Your task to perform on an android device: Show me productivity apps on the Play Store Image 0: 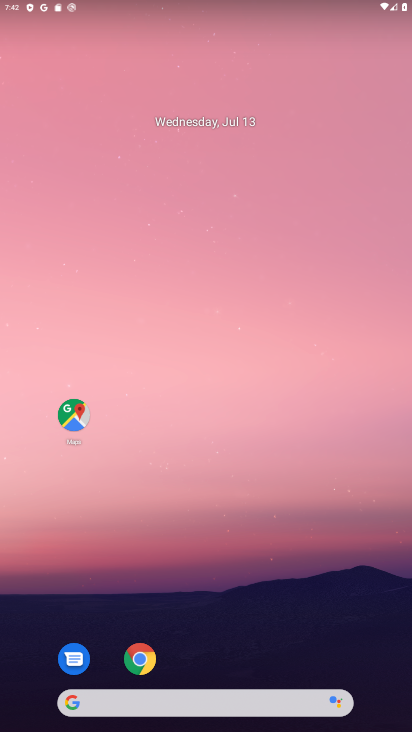
Step 0: drag from (229, 653) to (252, 313)
Your task to perform on an android device: Show me productivity apps on the Play Store Image 1: 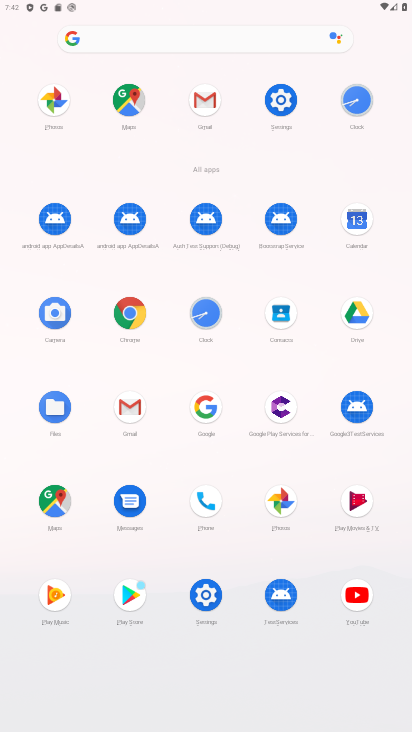
Step 1: click (141, 589)
Your task to perform on an android device: Show me productivity apps on the Play Store Image 2: 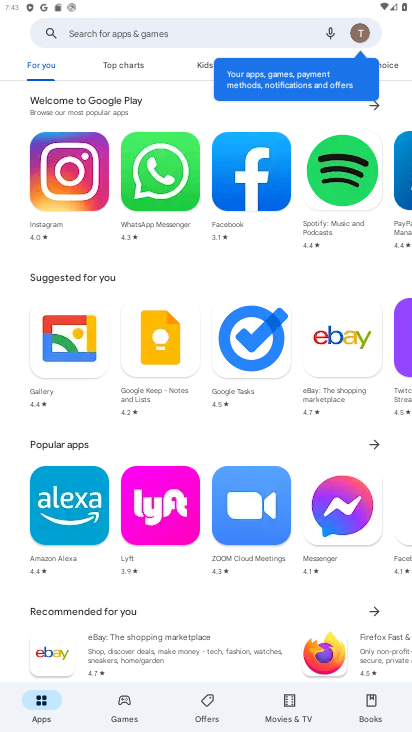
Step 2: click (120, 70)
Your task to perform on an android device: Show me productivity apps on the Play Store Image 3: 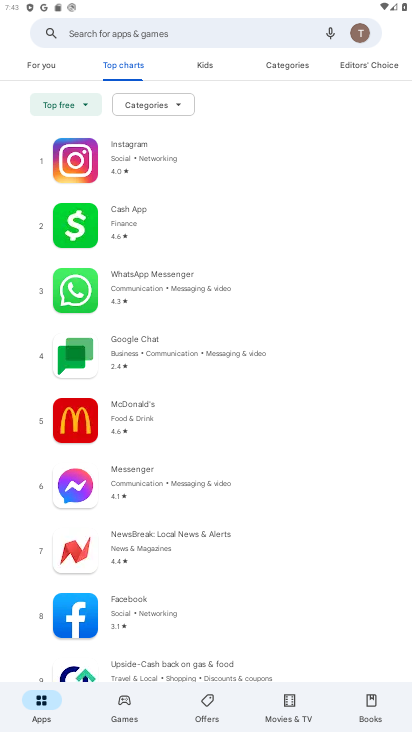
Step 3: click (169, 109)
Your task to perform on an android device: Show me productivity apps on the Play Store Image 4: 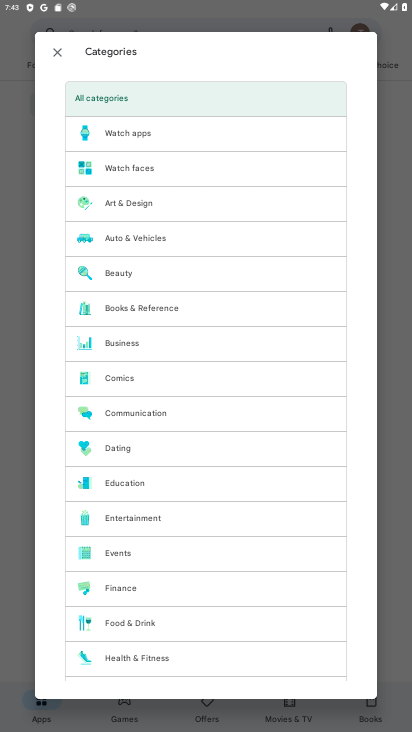
Step 4: drag from (127, 620) to (127, 439)
Your task to perform on an android device: Show me productivity apps on the Play Store Image 5: 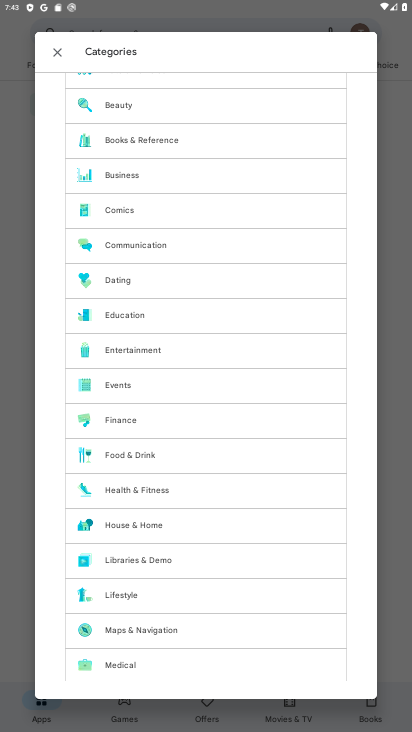
Step 5: drag from (162, 633) to (135, 423)
Your task to perform on an android device: Show me productivity apps on the Play Store Image 6: 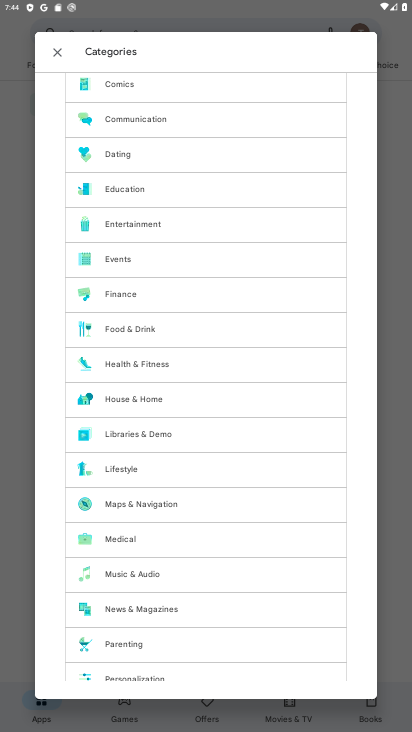
Step 6: drag from (132, 633) to (165, 464)
Your task to perform on an android device: Show me productivity apps on the Play Store Image 7: 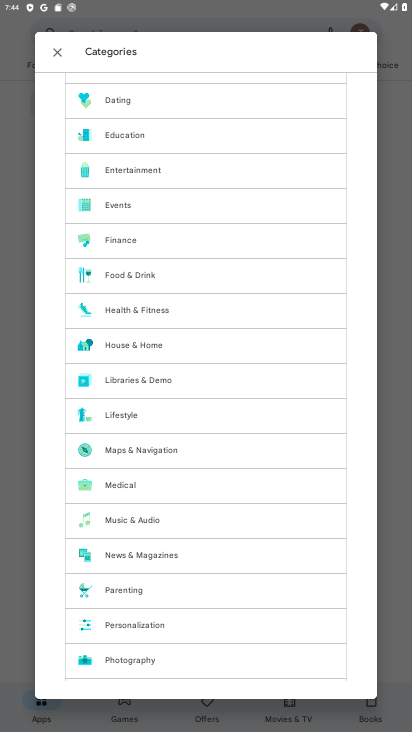
Step 7: drag from (155, 651) to (159, 465)
Your task to perform on an android device: Show me productivity apps on the Play Store Image 8: 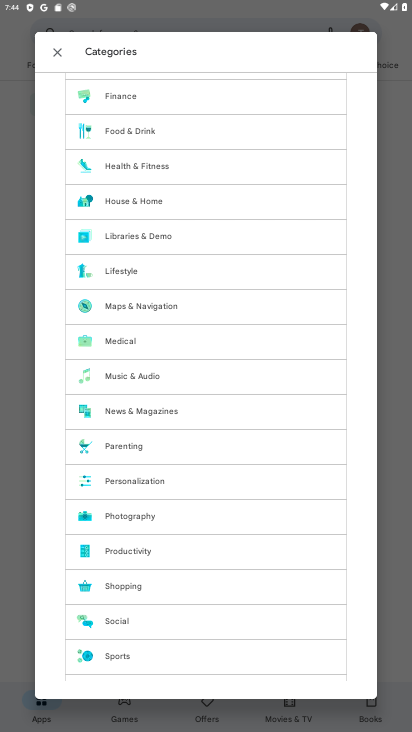
Step 8: click (188, 557)
Your task to perform on an android device: Show me productivity apps on the Play Store Image 9: 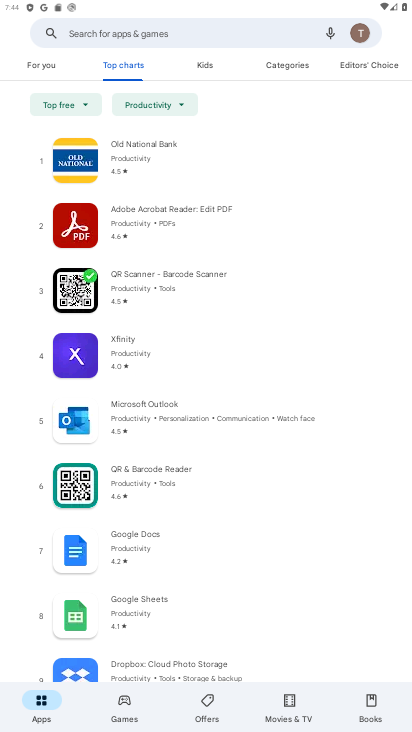
Step 9: task complete